Your task to perform on an android device: turn off location Image 0: 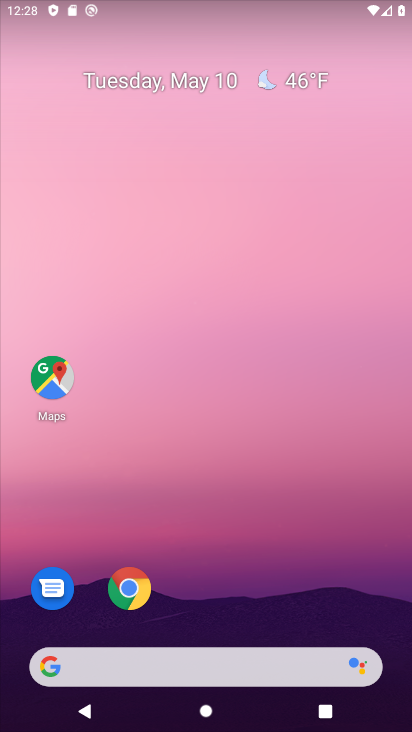
Step 0: drag from (250, 639) to (219, 1)
Your task to perform on an android device: turn off location Image 1: 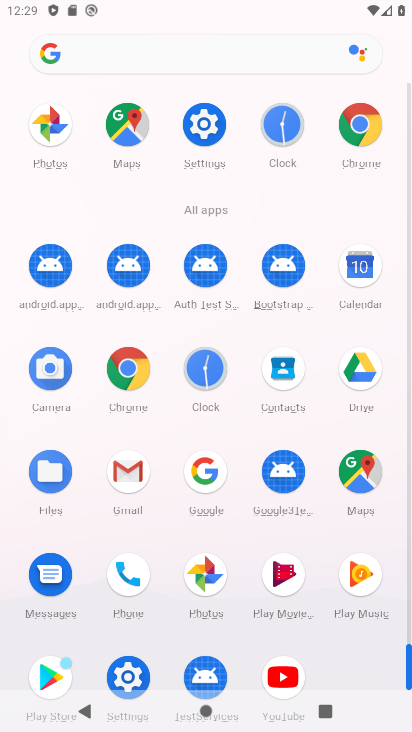
Step 1: click (194, 141)
Your task to perform on an android device: turn off location Image 2: 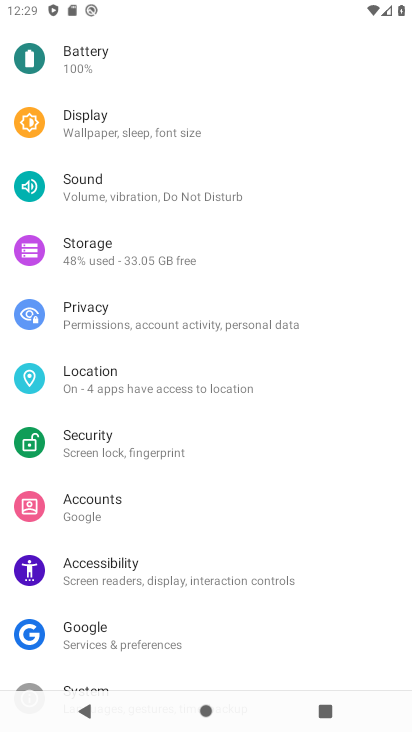
Step 2: click (122, 401)
Your task to perform on an android device: turn off location Image 3: 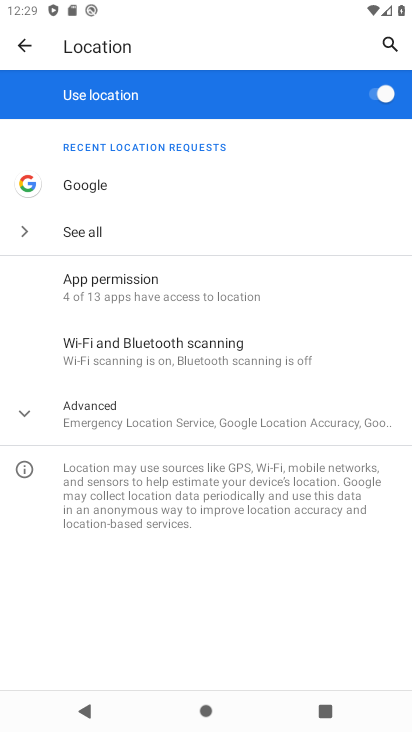
Step 3: click (366, 93)
Your task to perform on an android device: turn off location Image 4: 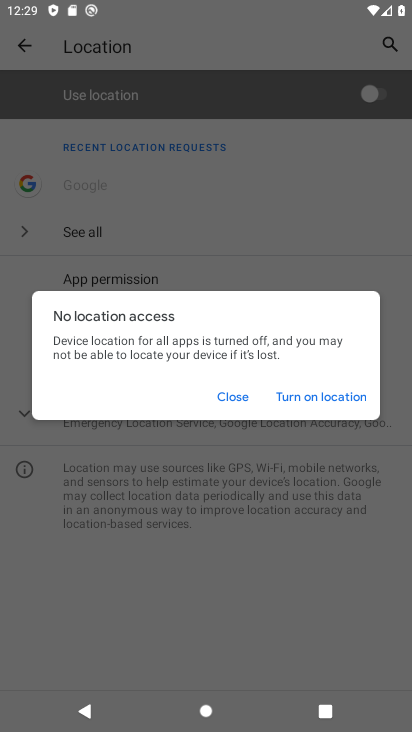
Step 4: task complete